Your task to perform on an android device: Go to notification settings Image 0: 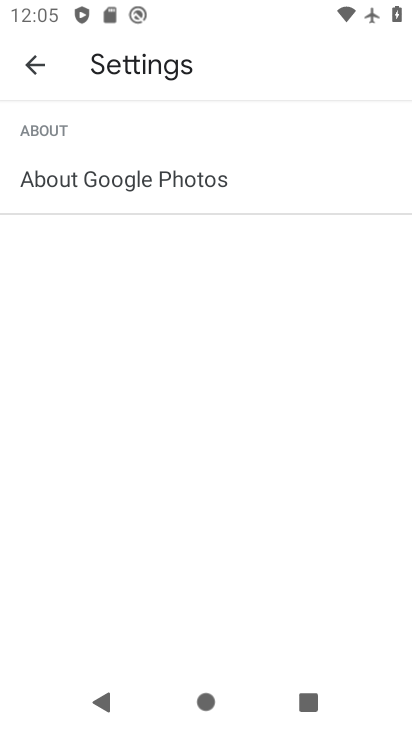
Step 0: press home button
Your task to perform on an android device: Go to notification settings Image 1: 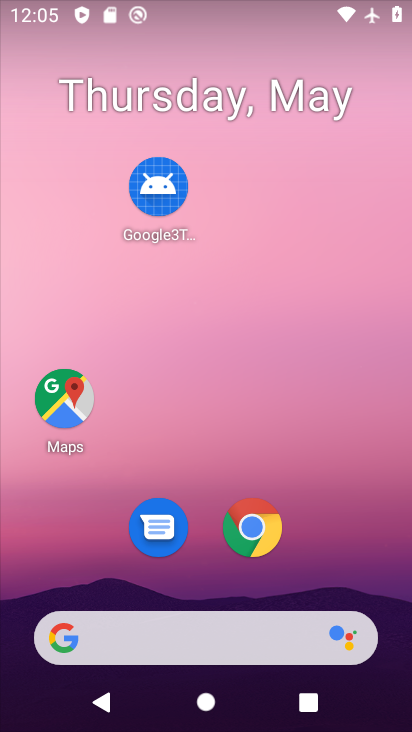
Step 1: drag from (199, 551) to (198, 59)
Your task to perform on an android device: Go to notification settings Image 2: 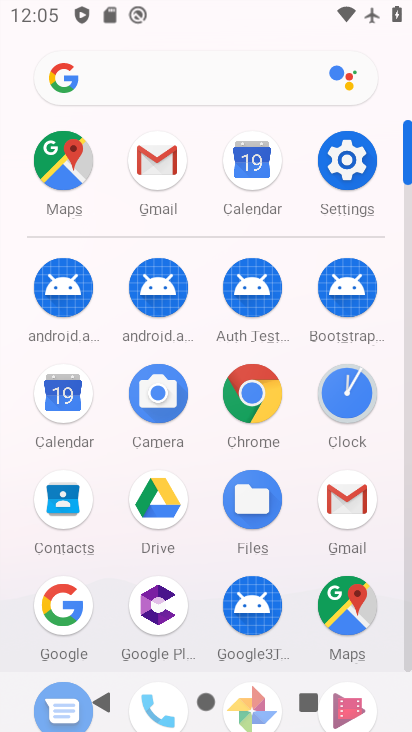
Step 2: click (351, 162)
Your task to perform on an android device: Go to notification settings Image 3: 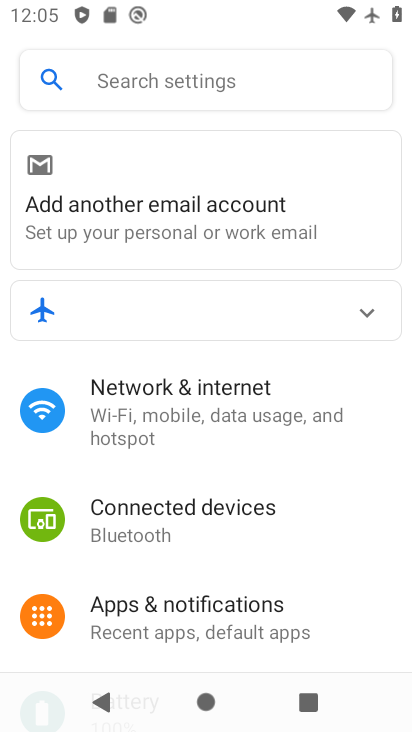
Step 3: click (199, 605)
Your task to perform on an android device: Go to notification settings Image 4: 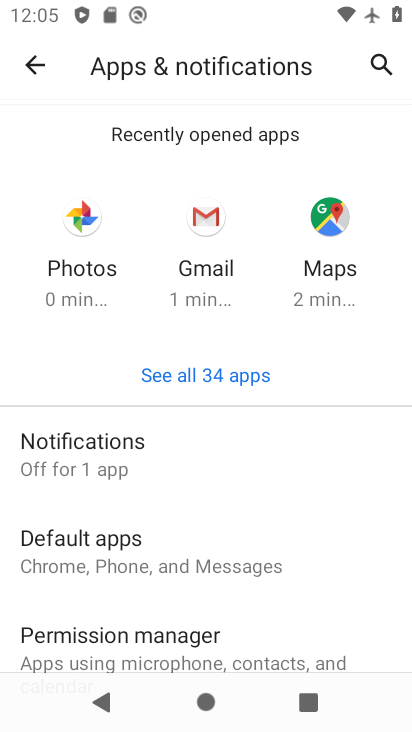
Step 4: click (147, 463)
Your task to perform on an android device: Go to notification settings Image 5: 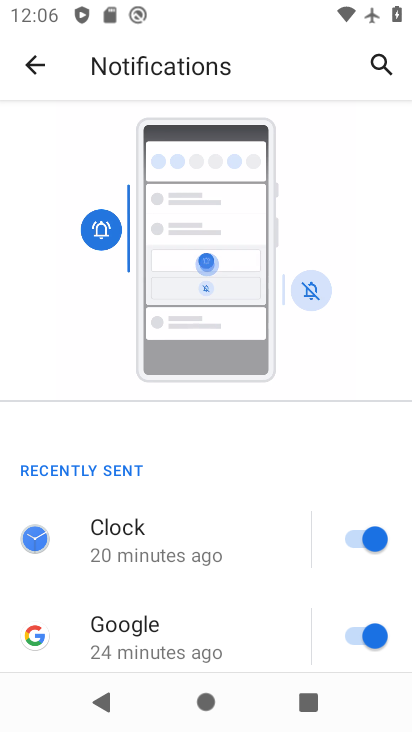
Step 5: drag from (203, 515) to (212, 244)
Your task to perform on an android device: Go to notification settings Image 6: 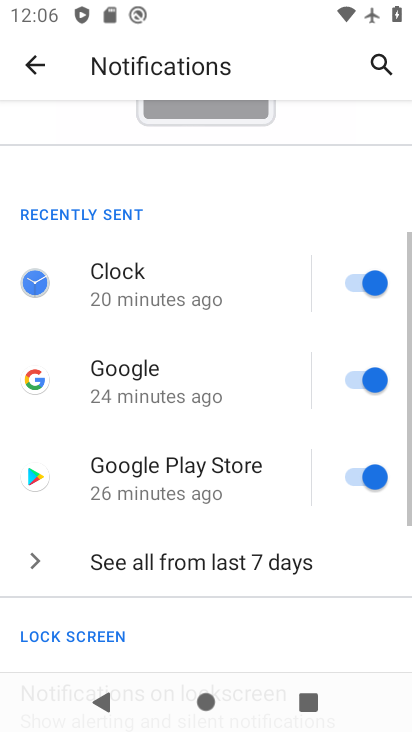
Step 6: drag from (223, 619) to (242, 256)
Your task to perform on an android device: Go to notification settings Image 7: 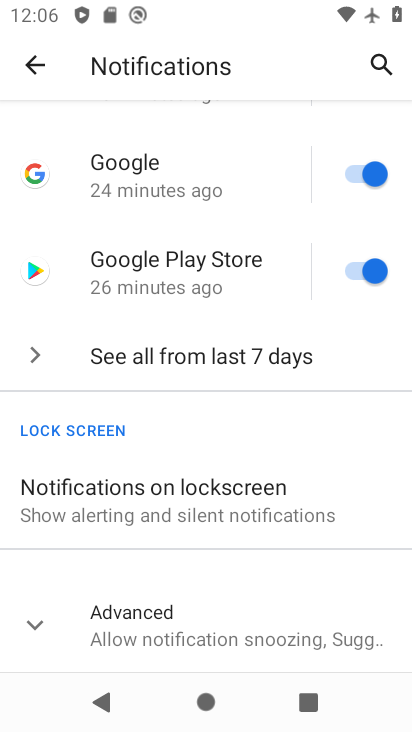
Step 7: click (32, 617)
Your task to perform on an android device: Go to notification settings Image 8: 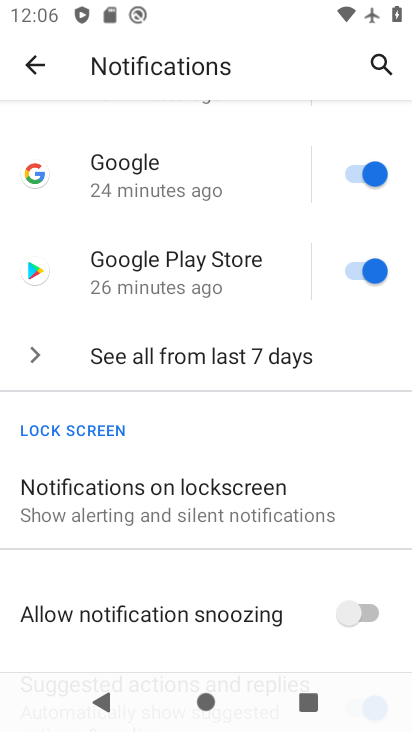
Step 8: task complete